Your task to perform on an android device: see tabs open on other devices in the chrome app Image 0: 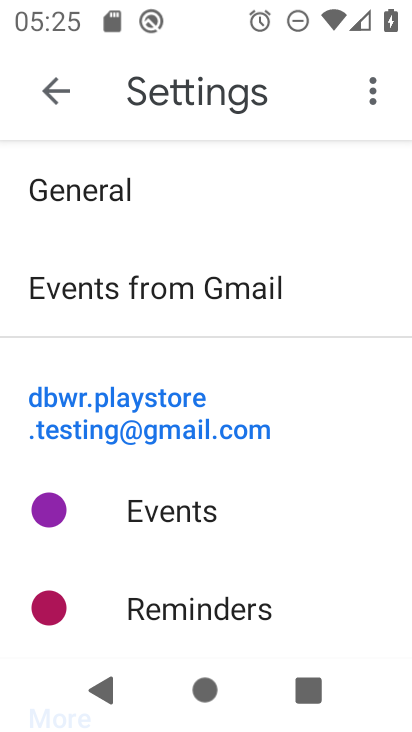
Step 0: press home button
Your task to perform on an android device: see tabs open on other devices in the chrome app Image 1: 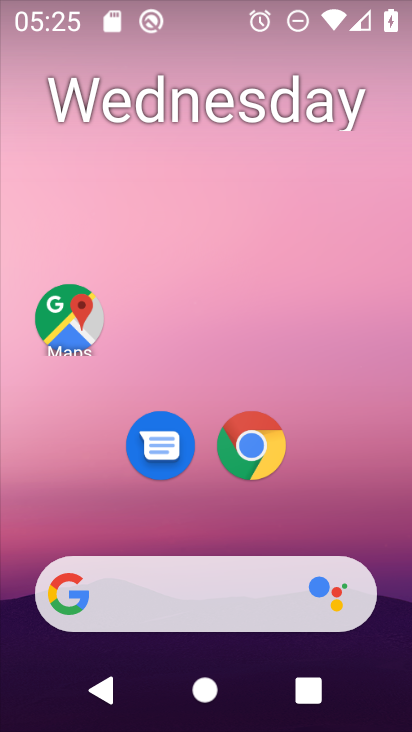
Step 1: click (239, 429)
Your task to perform on an android device: see tabs open on other devices in the chrome app Image 2: 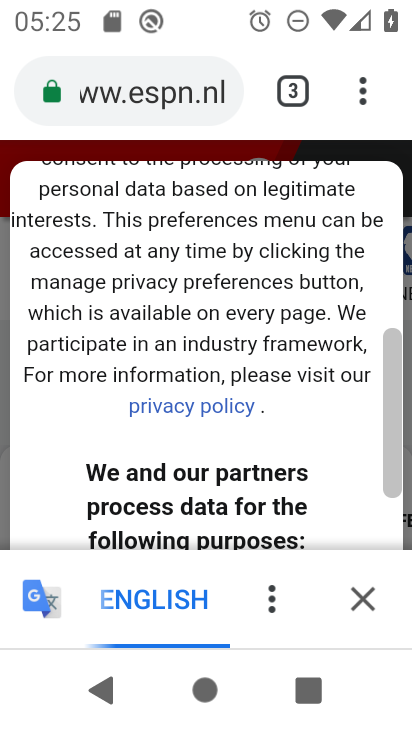
Step 2: click (374, 91)
Your task to perform on an android device: see tabs open on other devices in the chrome app Image 3: 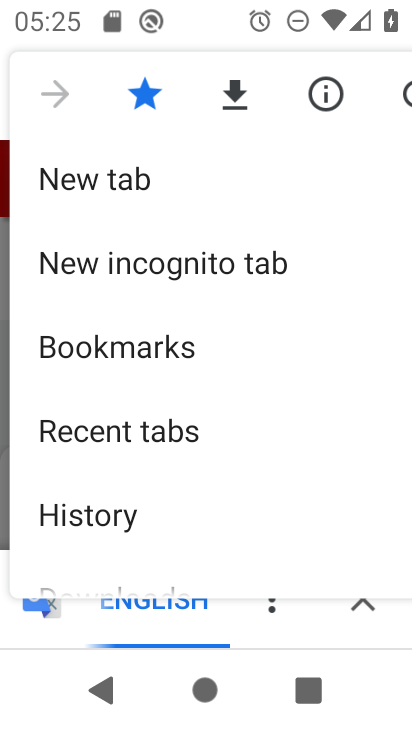
Step 3: click (87, 444)
Your task to perform on an android device: see tabs open on other devices in the chrome app Image 4: 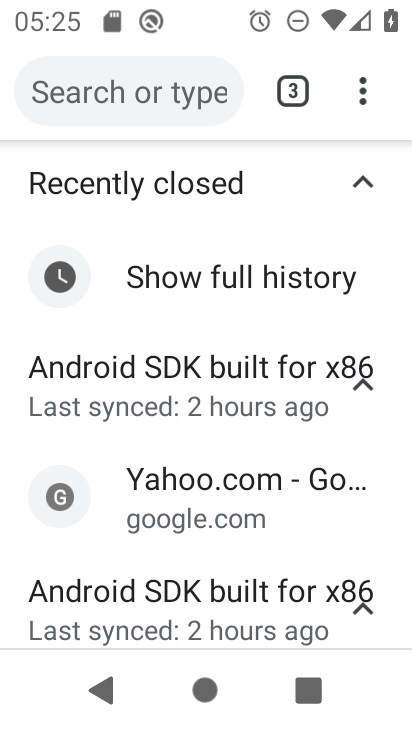
Step 4: task complete